Your task to perform on an android device: Go to settings Image 0: 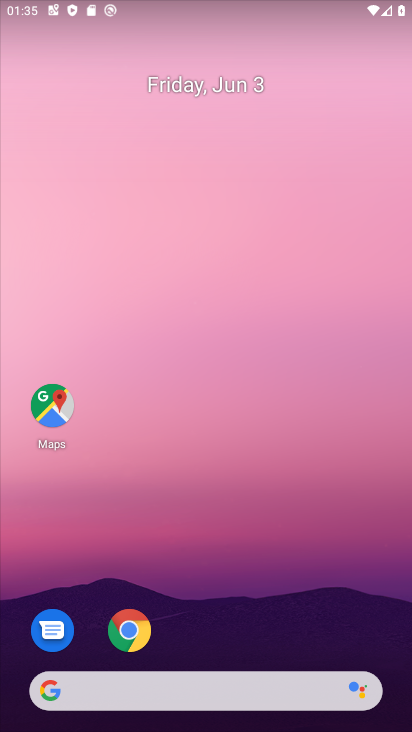
Step 0: drag from (206, 630) to (339, 5)
Your task to perform on an android device: Go to settings Image 1: 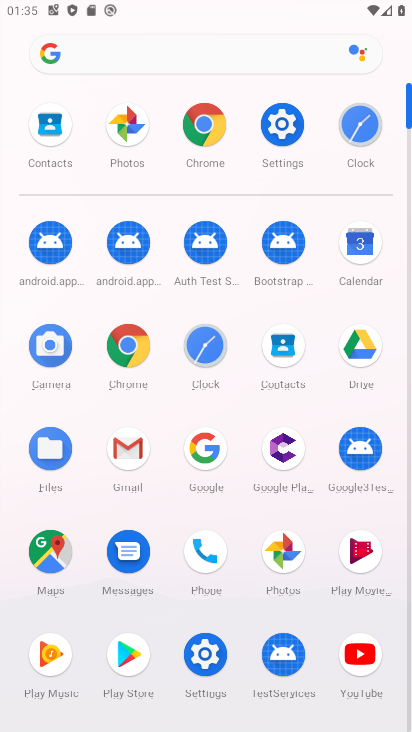
Step 1: click (292, 112)
Your task to perform on an android device: Go to settings Image 2: 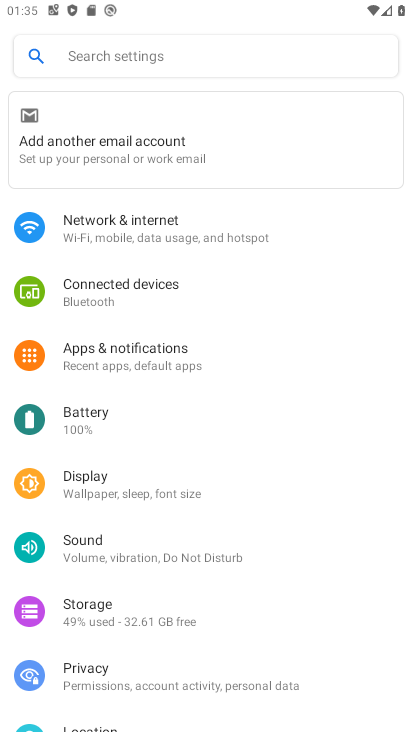
Step 2: task complete